Your task to perform on an android device: Open my contact list Image 0: 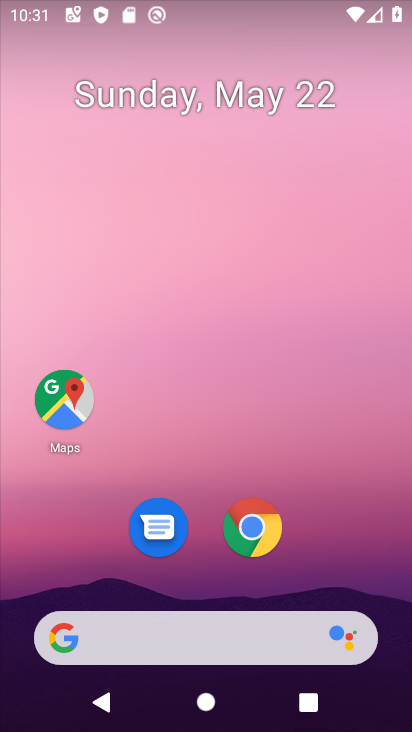
Step 0: drag from (338, 565) to (306, 19)
Your task to perform on an android device: Open my contact list Image 1: 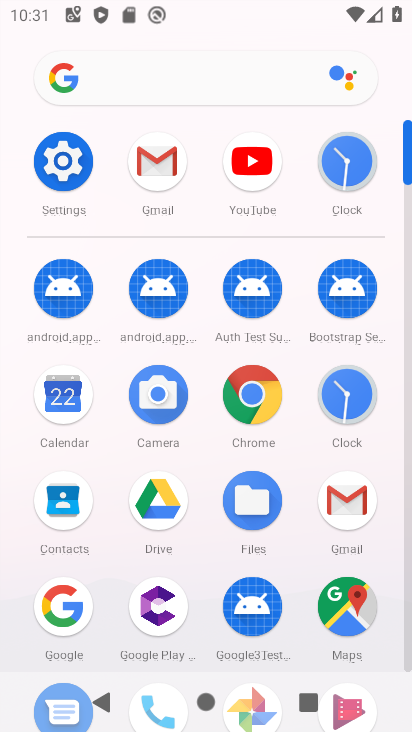
Step 1: click (410, 656)
Your task to perform on an android device: Open my contact list Image 2: 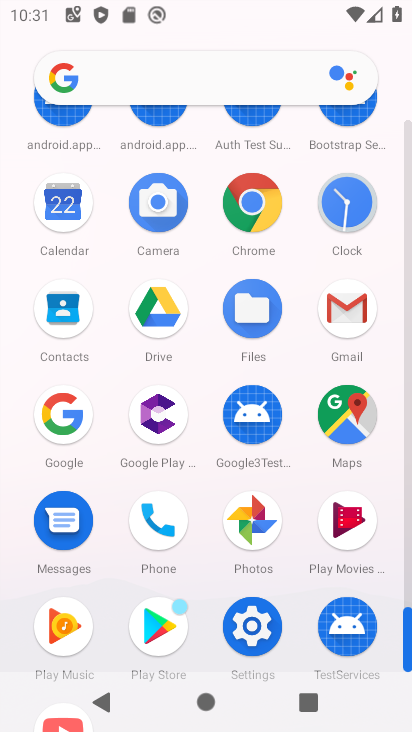
Step 2: click (156, 516)
Your task to perform on an android device: Open my contact list Image 3: 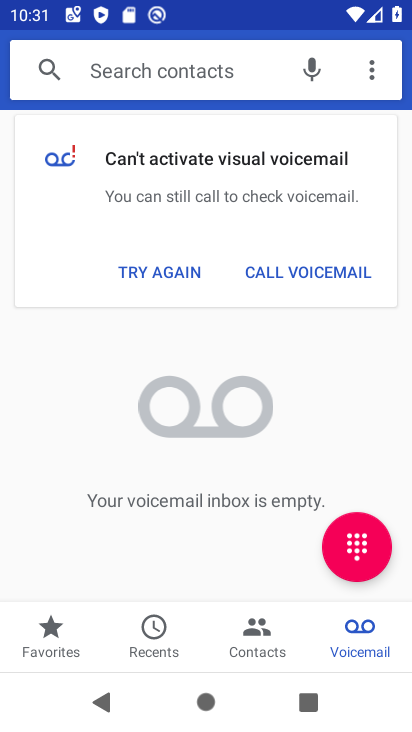
Step 3: click (253, 633)
Your task to perform on an android device: Open my contact list Image 4: 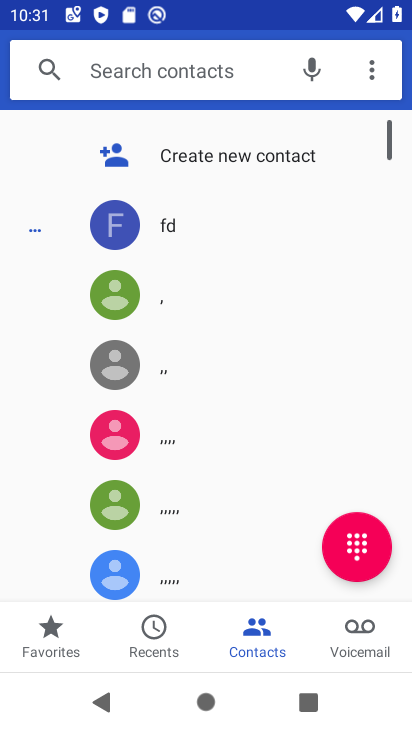
Step 4: task complete